Your task to perform on an android device: When is my next appointment? Image 0: 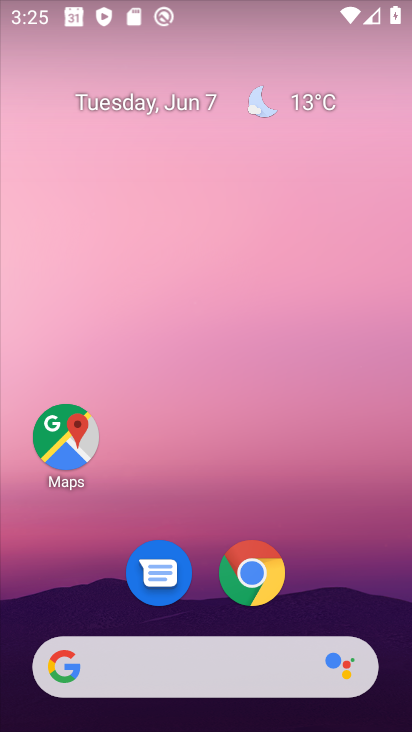
Step 0: drag from (347, 589) to (208, 31)
Your task to perform on an android device: When is my next appointment? Image 1: 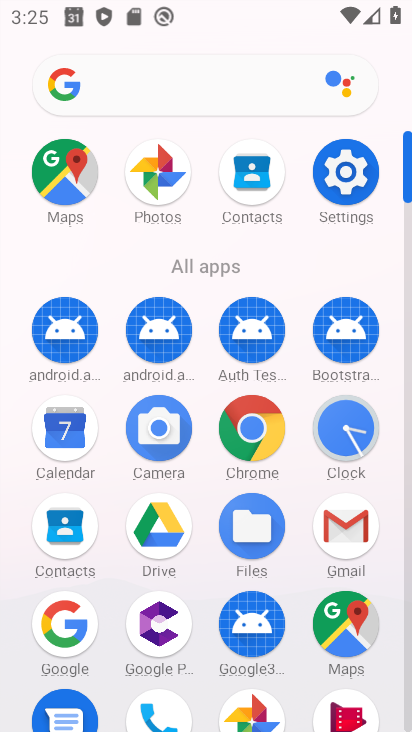
Step 1: click (79, 441)
Your task to perform on an android device: When is my next appointment? Image 2: 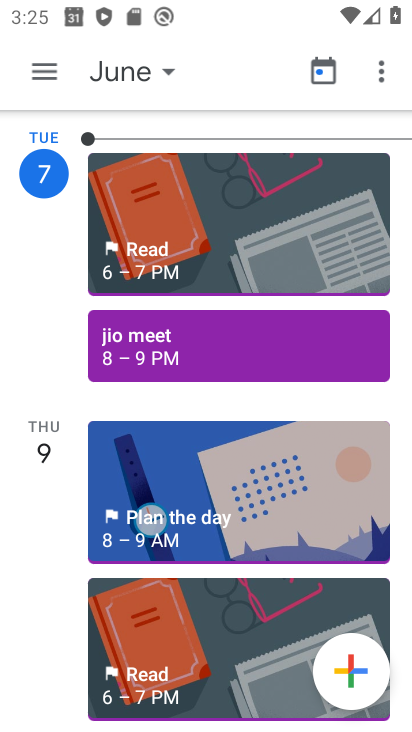
Step 2: task complete